Your task to perform on an android device: Go to display settings Image 0: 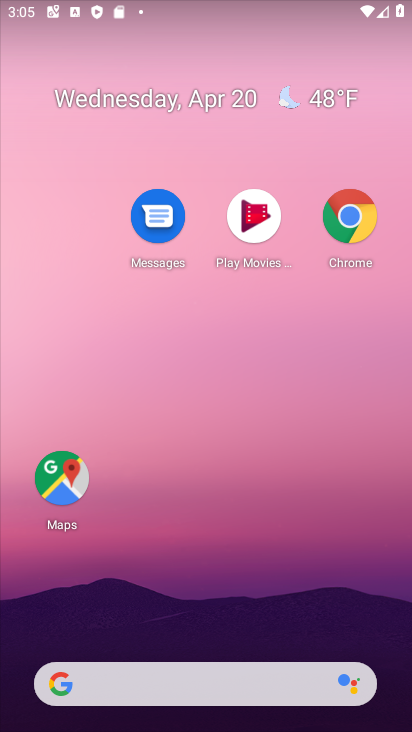
Step 0: drag from (241, 265) to (241, 145)
Your task to perform on an android device: Go to display settings Image 1: 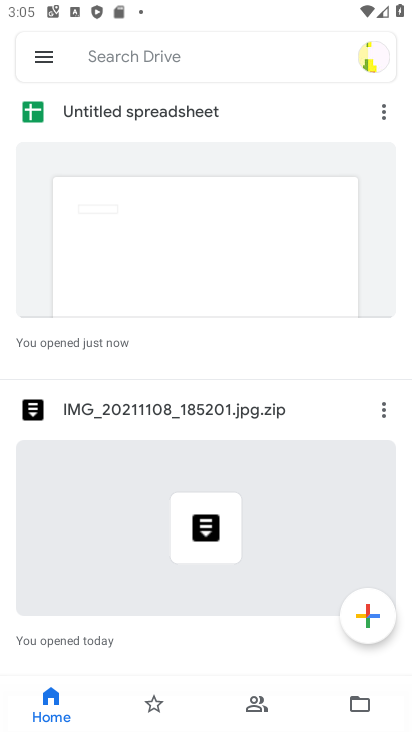
Step 1: press home button
Your task to perform on an android device: Go to display settings Image 2: 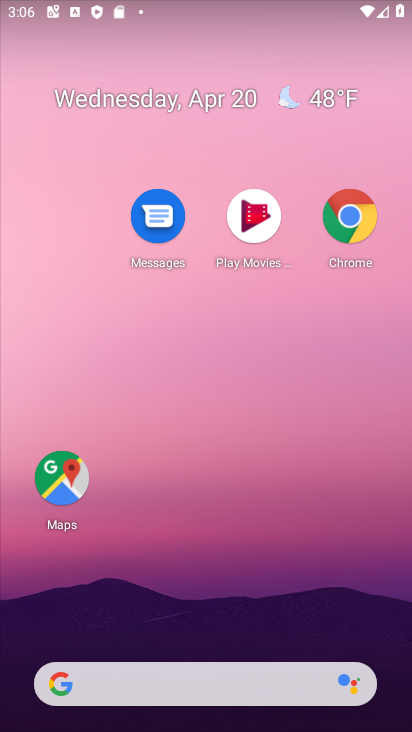
Step 2: drag from (302, 543) to (288, 6)
Your task to perform on an android device: Go to display settings Image 3: 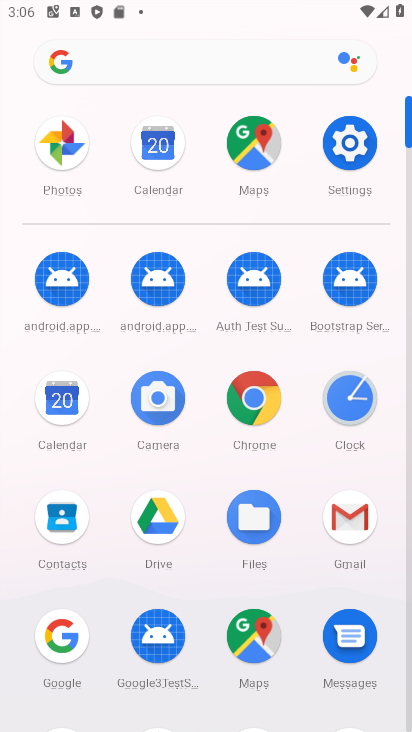
Step 3: click (362, 163)
Your task to perform on an android device: Go to display settings Image 4: 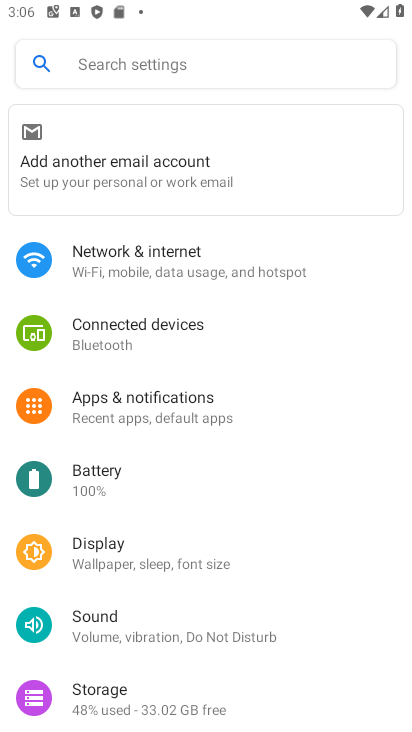
Step 4: click (158, 565)
Your task to perform on an android device: Go to display settings Image 5: 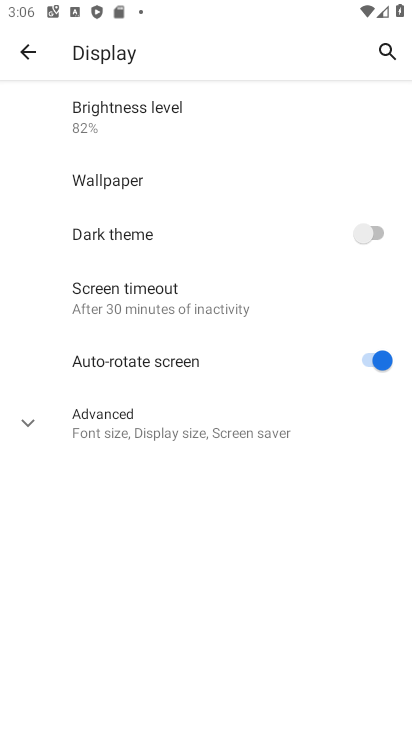
Step 5: task complete